Your task to perform on an android device: find photos in the google photos app Image 0: 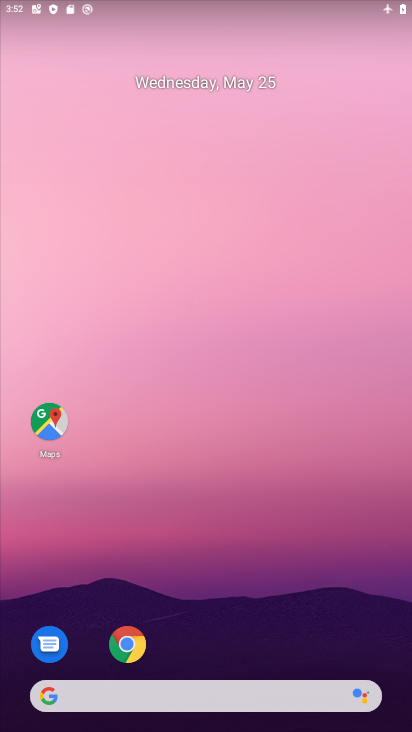
Step 0: drag from (325, 647) to (331, 0)
Your task to perform on an android device: find photos in the google photos app Image 1: 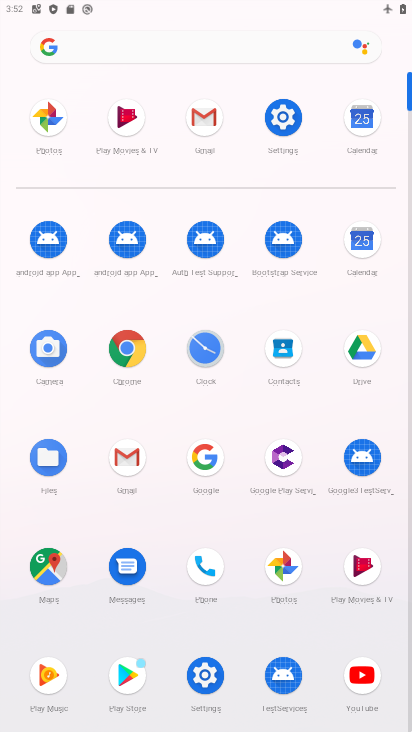
Step 1: click (50, 118)
Your task to perform on an android device: find photos in the google photos app Image 2: 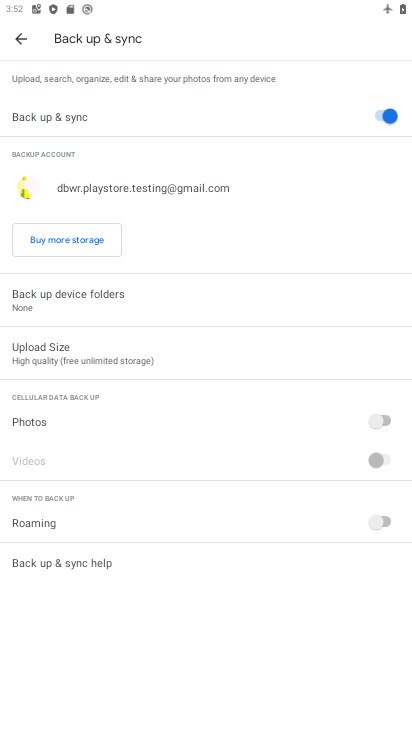
Step 2: click (17, 42)
Your task to perform on an android device: find photos in the google photos app Image 3: 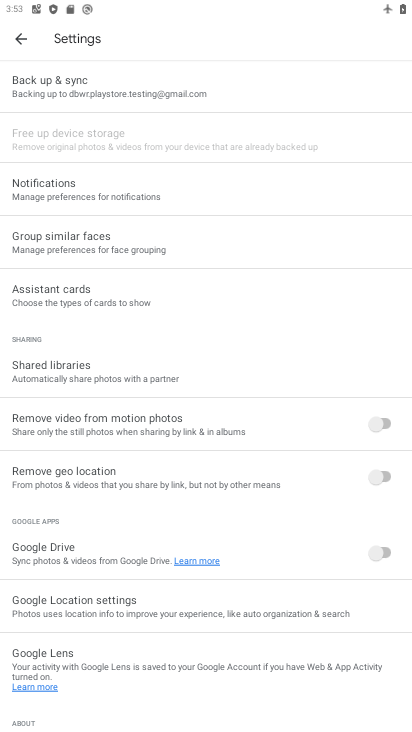
Step 3: click (13, 45)
Your task to perform on an android device: find photos in the google photos app Image 4: 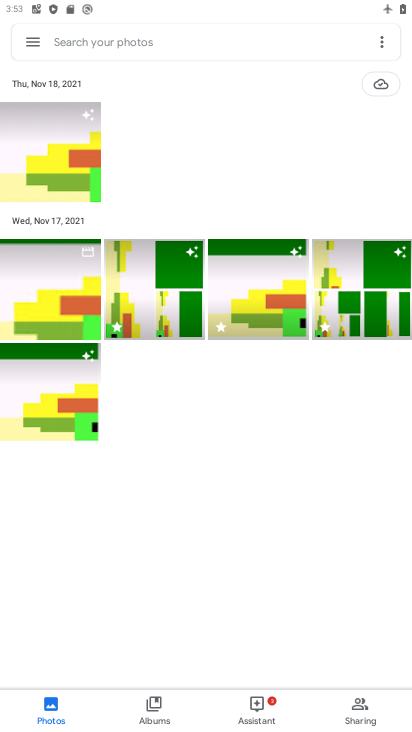
Step 4: task complete